Your task to perform on an android device: turn notification dots off Image 0: 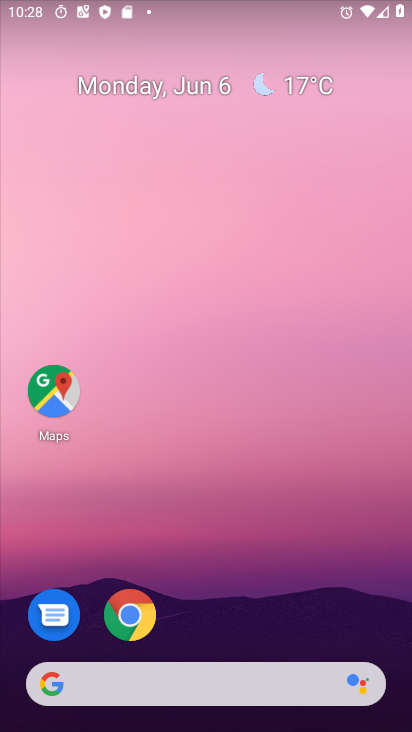
Step 0: press home button
Your task to perform on an android device: turn notification dots off Image 1: 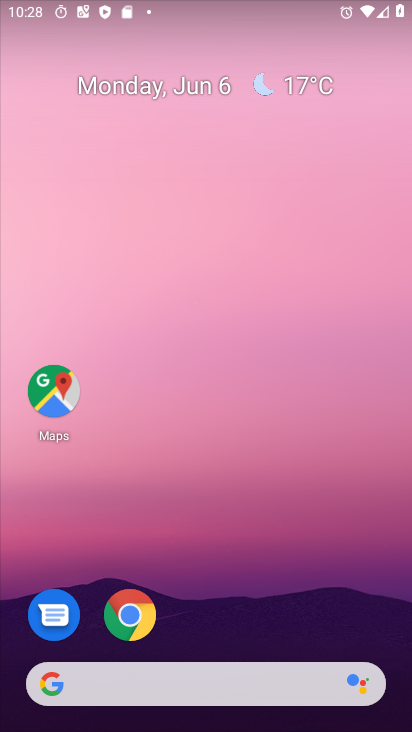
Step 1: drag from (212, 645) to (235, 67)
Your task to perform on an android device: turn notification dots off Image 2: 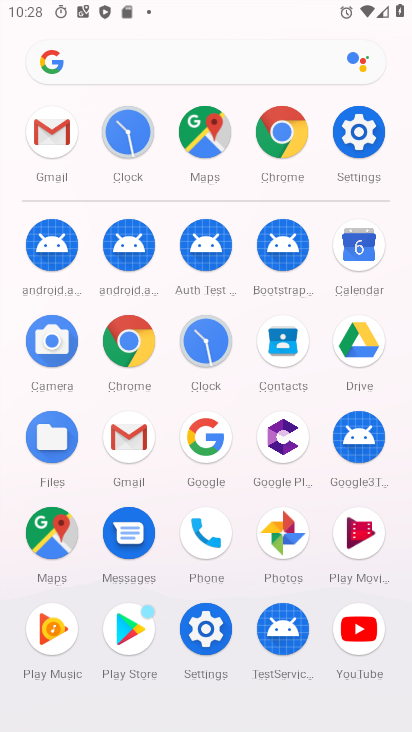
Step 2: click (359, 123)
Your task to perform on an android device: turn notification dots off Image 3: 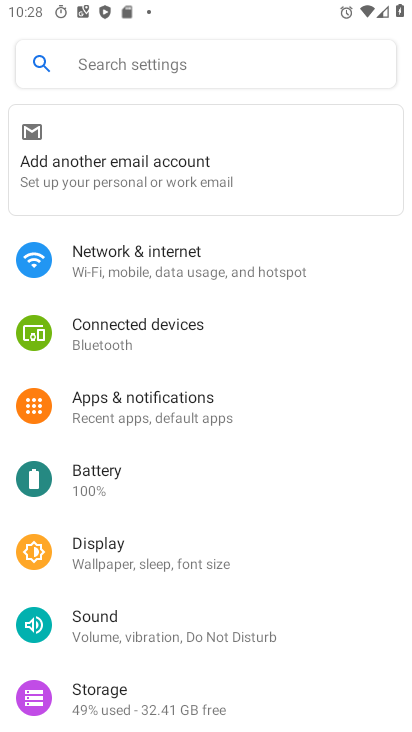
Step 3: click (251, 395)
Your task to perform on an android device: turn notification dots off Image 4: 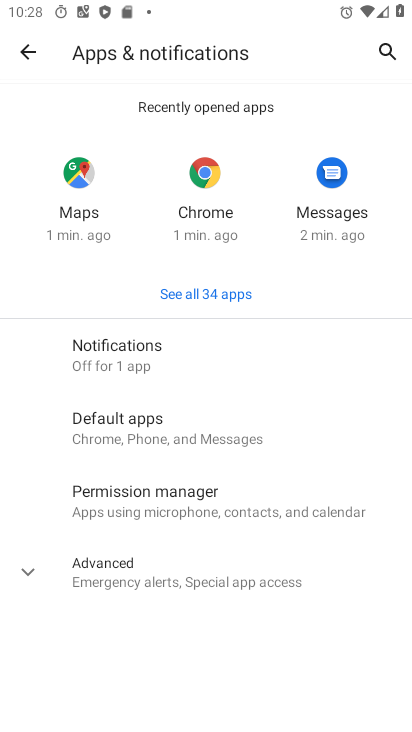
Step 4: click (169, 344)
Your task to perform on an android device: turn notification dots off Image 5: 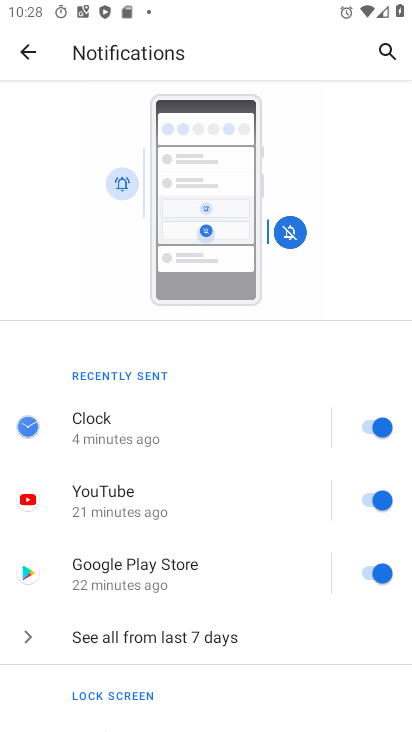
Step 5: drag from (238, 638) to (232, 186)
Your task to perform on an android device: turn notification dots off Image 6: 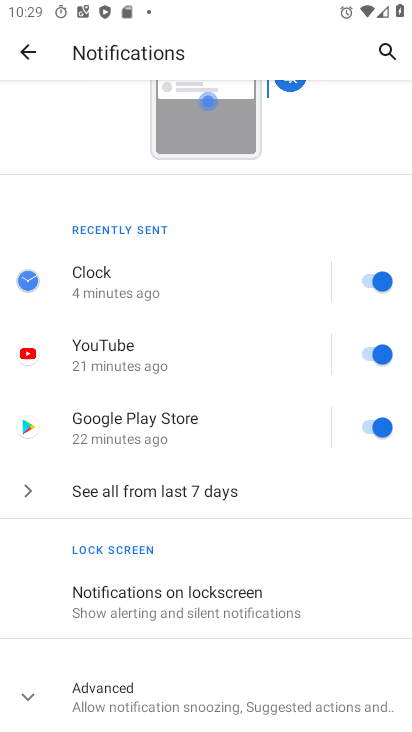
Step 6: click (33, 689)
Your task to perform on an android device: turn notification dots off Image 7: 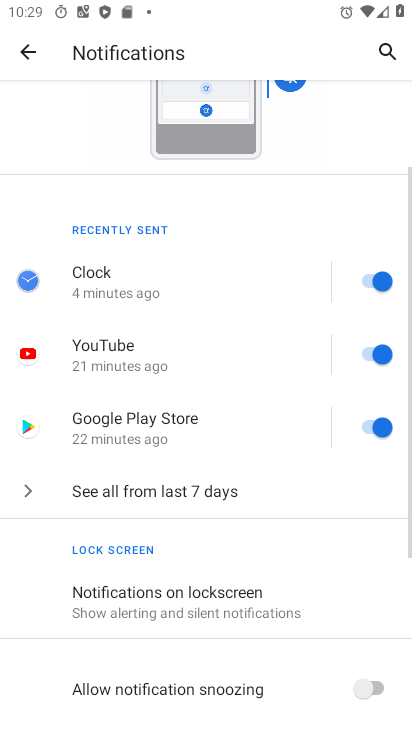
Step 7: drag from (178, 700) to (176, 208)
Your task to perform on an android device: turn notification dots off Image 8: 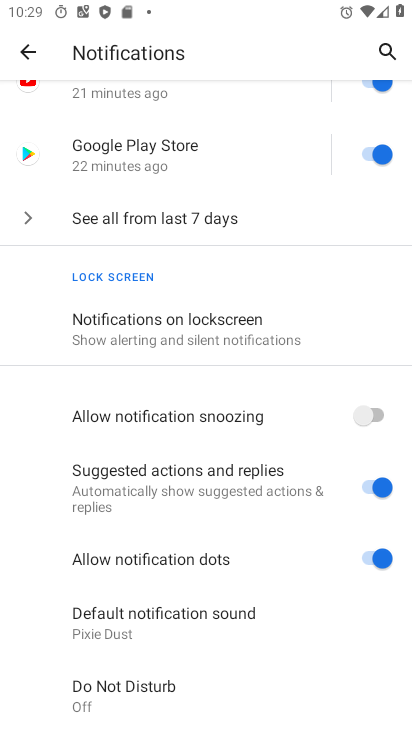
Step 8: click (373, 550)
Your task to perform on an android device: turn notification dots off Image 9: 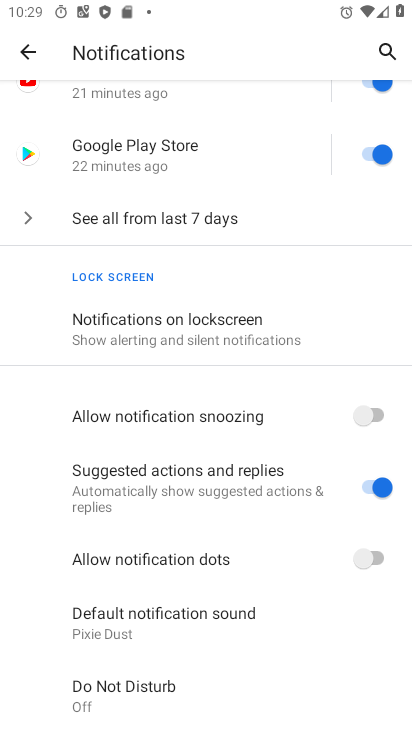
Step 9: task complete